Your task to perform on an android device: change your default location settings in chrome Image 0: 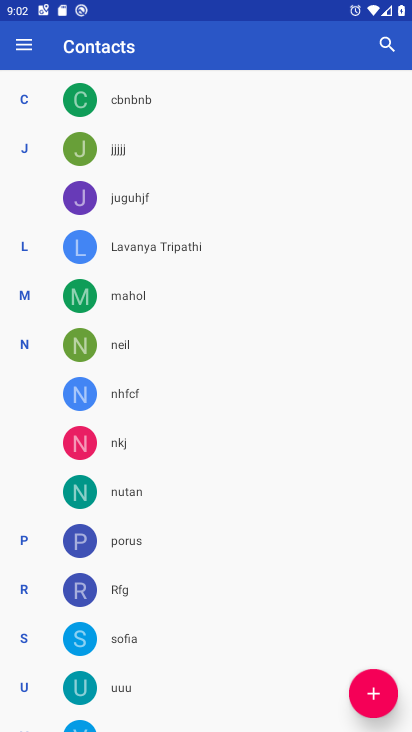
Step 0: press home button
Your task to perform on an android device: change your default location settings in chrome Image 1: 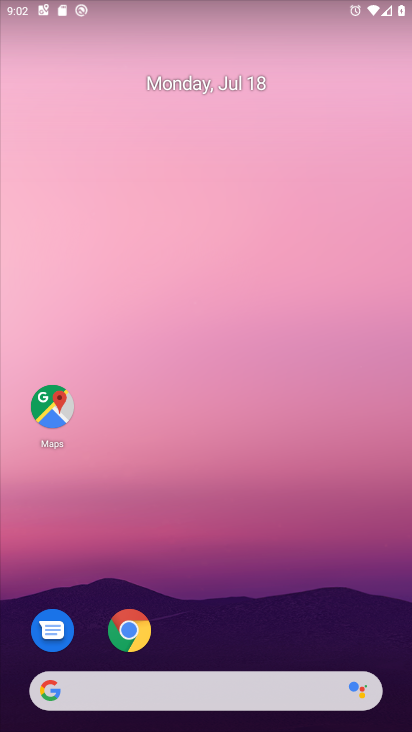
Step 1: click (138, 639)
Your task to perform on an android device: change your default location settings in chrome Image 2: 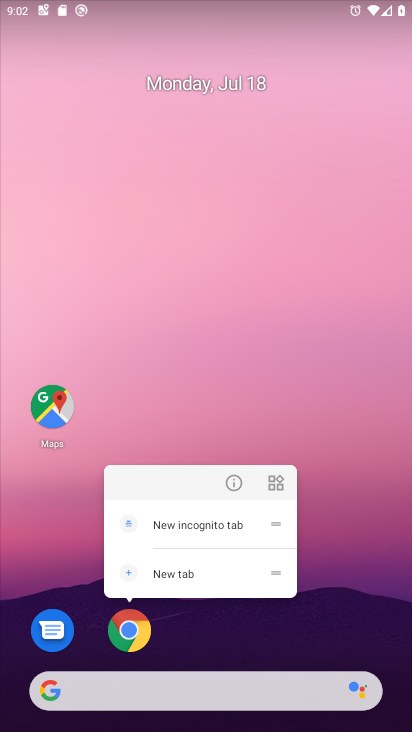
Step 2: click (128, 621)
Your task to perform on an android device: change your default location settings in chrome Image 3: 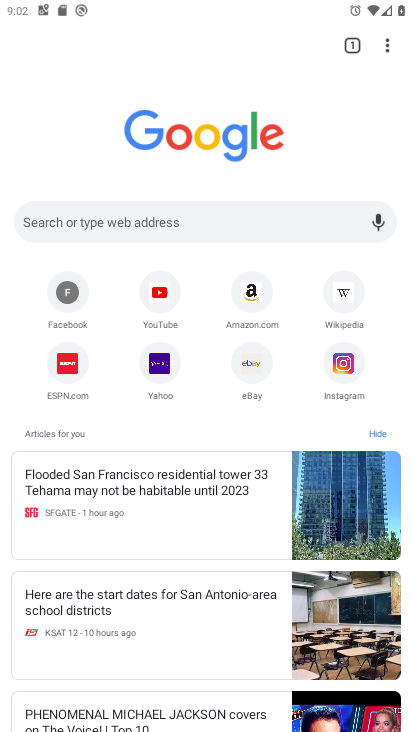
Step 3: click (390, 46)
Your task to perform on an android device: change your default location settings in chrome Image 4: 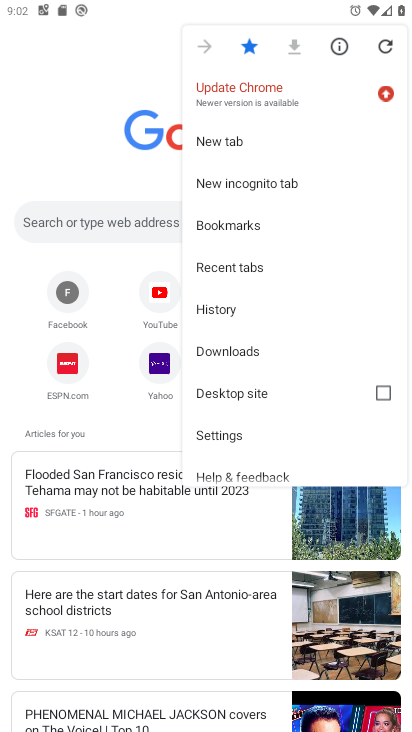
Step 4: click (268, 436)
Your task to perform on an android device: change your default location settings in chrome Image 5: 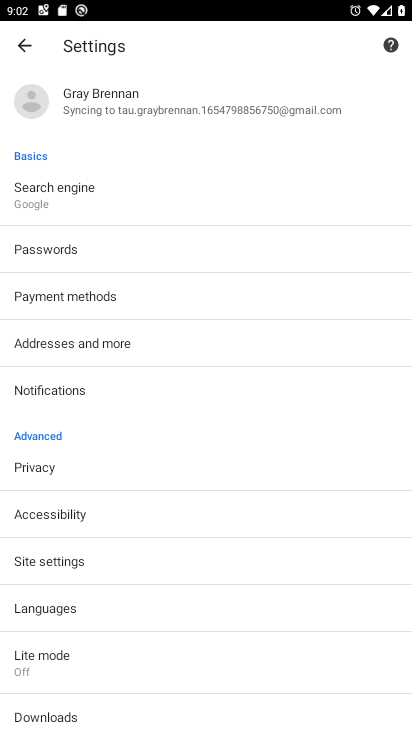
Step 5: drag from (142, 608) to (173, 405)
Your task to perform on an android device: change your default location settings in chrome Image 6: 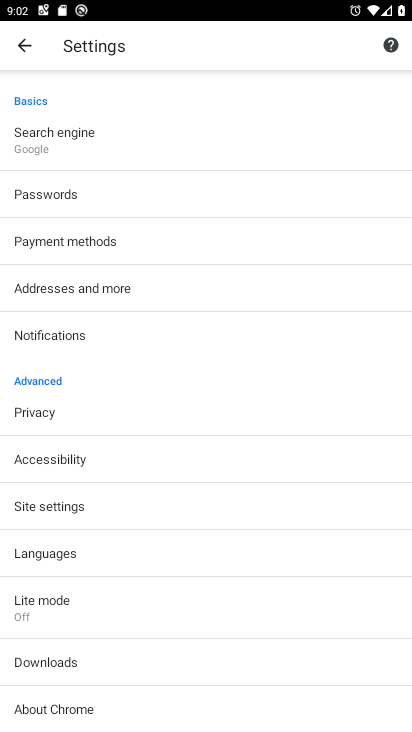
Step 6: click (106, 505)
Your task to perform on an android device: change your default location settings in chrome Image 7: 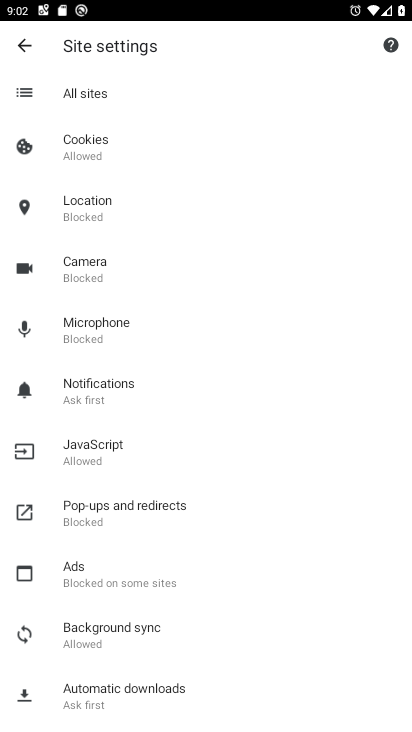
Step 7: click (119, 218)
Your task to perform on an android device: change your default location settings in chrome Image 8: 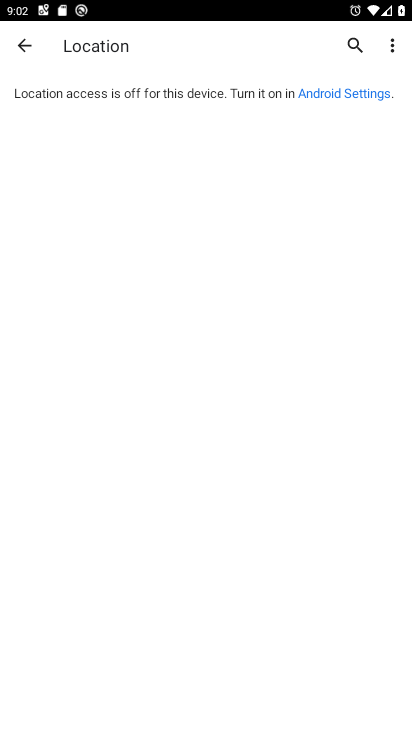
Step 8: click (347, 95)
Your task to perform on an android device: change your default location settings in chrome Image 9: 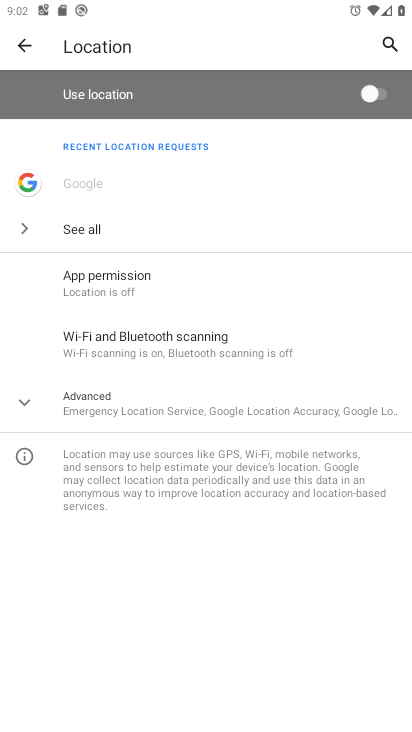
Step 9: click (389, 93)
Your task to perform on an android device: change your default location settings in chrome Image 10: 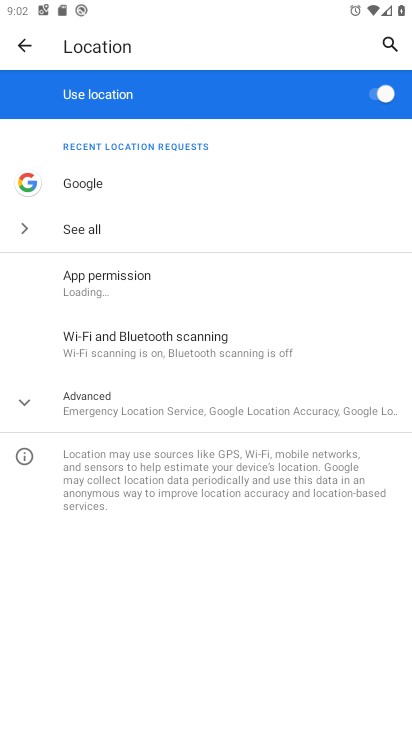
Step 10: task complete